Your task to perform on an android device: turn off data saver in the chrome app Image 0: 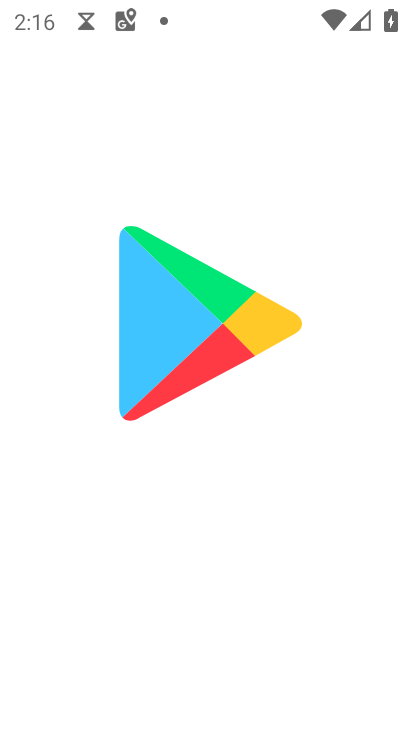
Step 0: click (326, 556)
Your task to perform on an android device: turn off data saver in the chrome app Image 1: 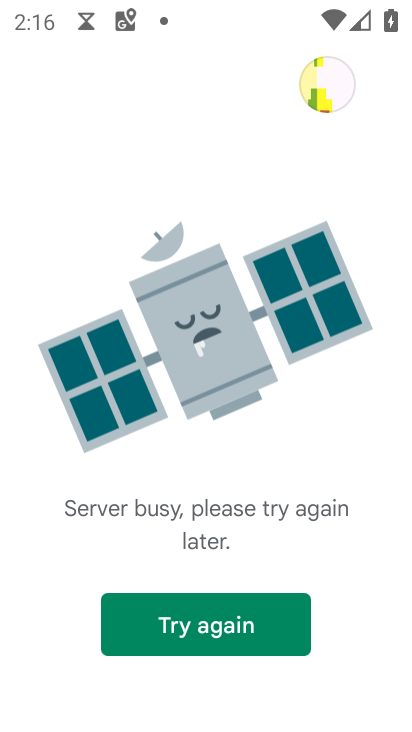
Step 1: press home button
Your task to perform on an android device: turn off data saver in the chrome app Image 2: 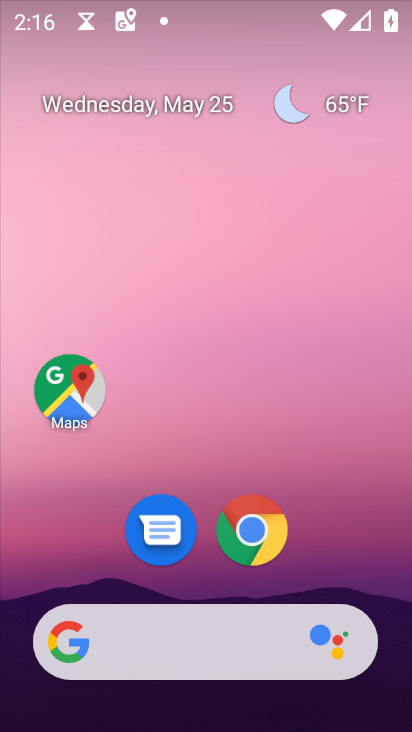
Step 2: drag from (337, 553) to (311, 271)
Your task to perform on an android device: turn off data saver in the chrome app Image 3: 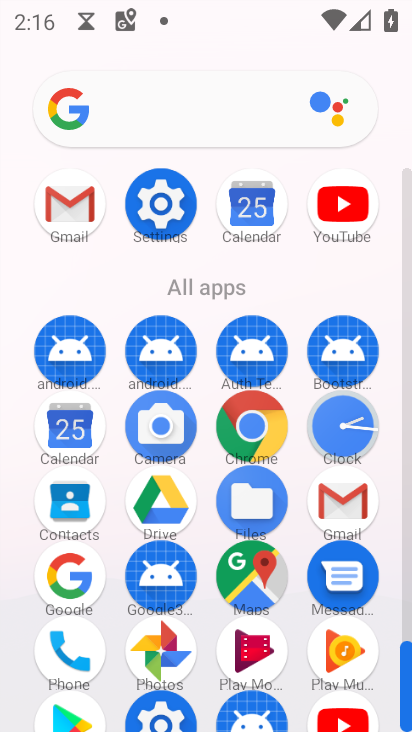
Step 3: click (146, 197)
Your task to perform on an android device: turn off data saver in the chrome app Image 4: 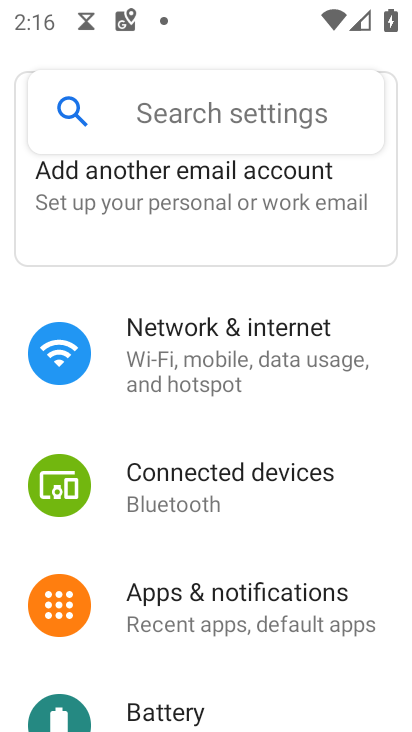
Step 4: press home button
Your task to perform on an android device: turn off data saver in the chrome app Image 5: 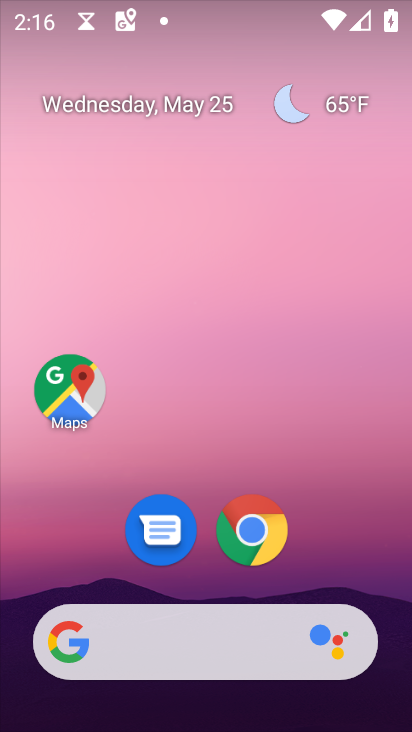
Step 5: click (267, 526)
Your task to perform on an android device: turn off data saver in the chrome app Image 6: 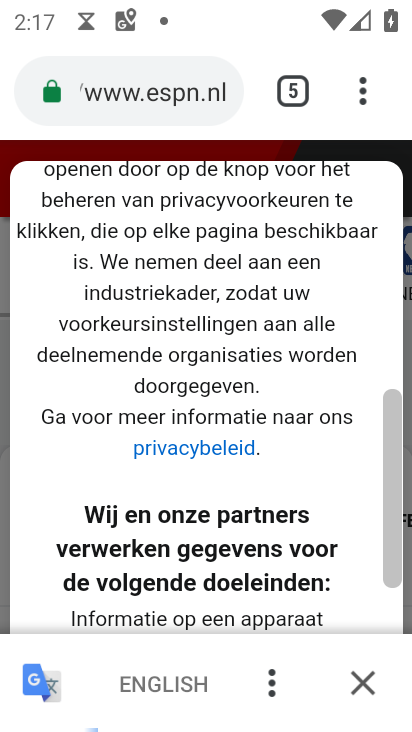
Step 6: click (373, 90)
Your task to perform on an android device: turn off data saver in the chrome app Image 7: 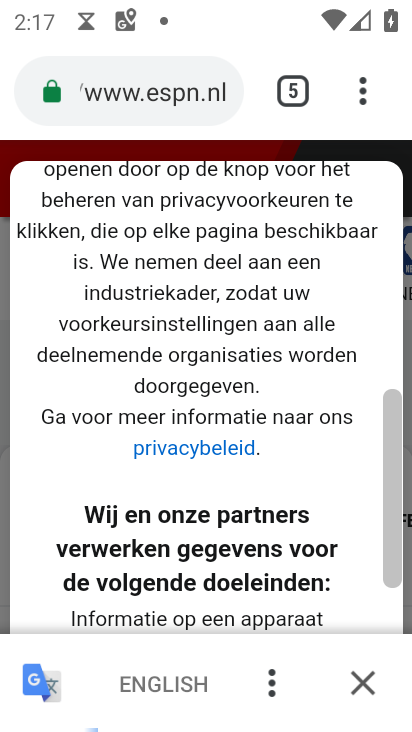
Step 7: click (371, 94)
Your task to perform on an android device: turn off data saver in the chrome app Image 8: 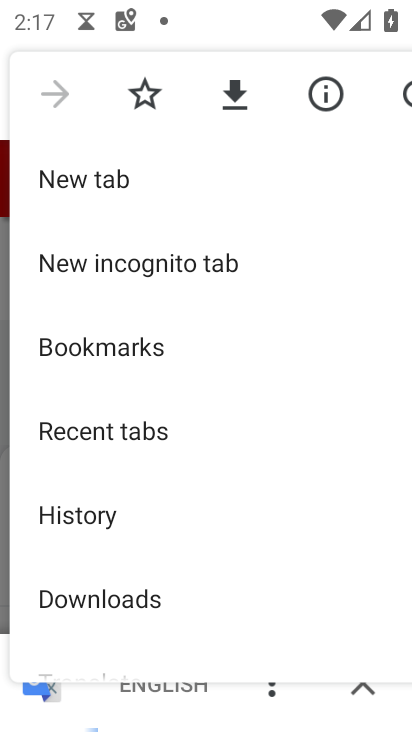
Step 8: drag from (278, 533) to (283, 203)
Your task to perform on an android device: turn off data saver in the chrome app Image 9: 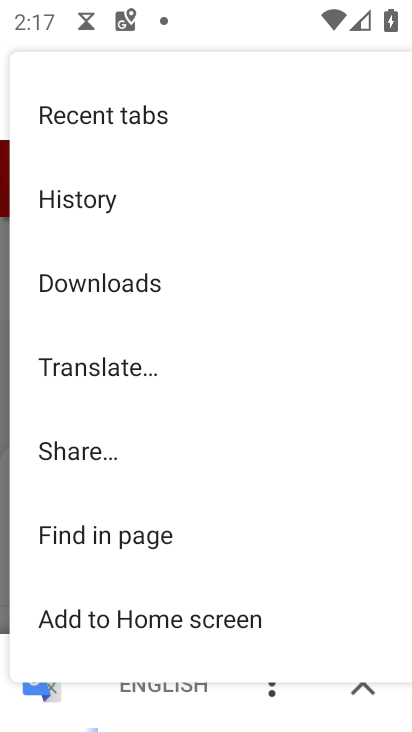
Step 9: drag from (188, 520) to (223, 174)
Your task to perform on an android device: turn off data saver in the chrome app Image 10: 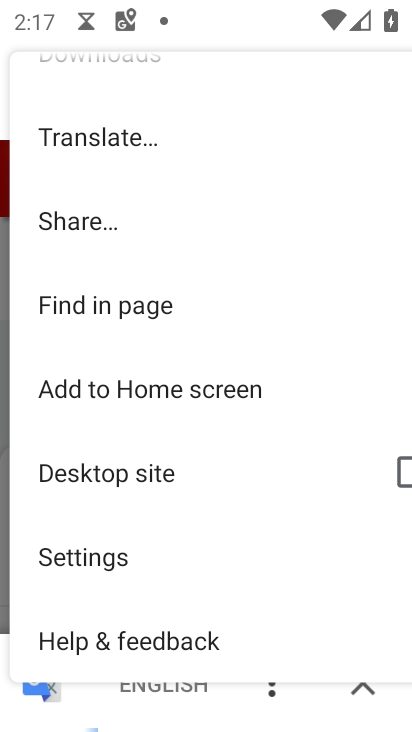
Step 10: click (112, 544)
Your task to perform on an android device: turn off data saver in the chrome app Image 11: 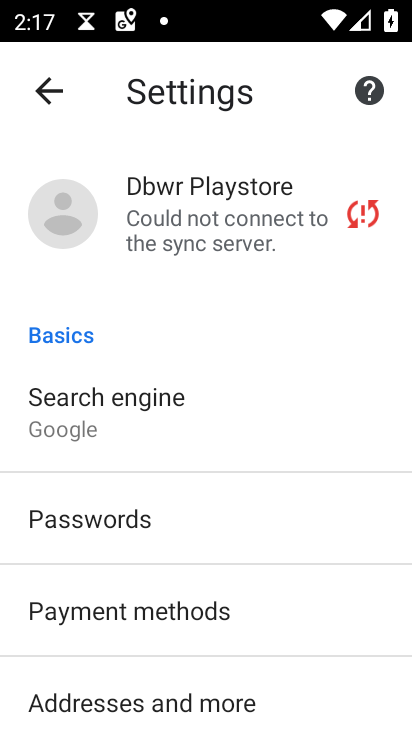
Step 11: drag from (242, 590) to (262, 237)
Your task to perform on an android device: turn off data saver in the chrome app Image 12: 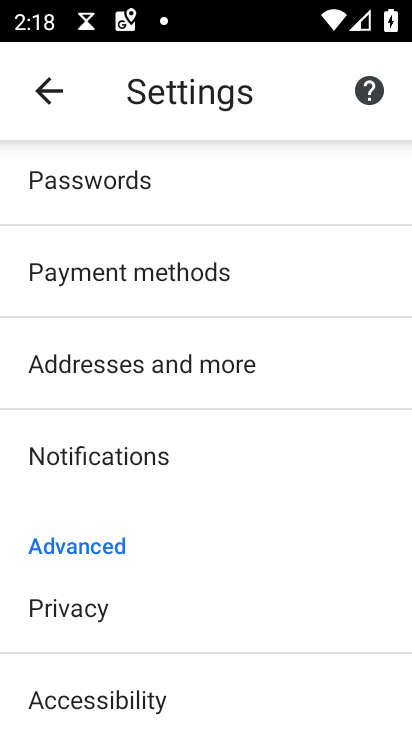
Step 12: drag from (223, 561) to (267, 132)
Your task to perform on an android device: turn off data saver in the chrome app Image 13: 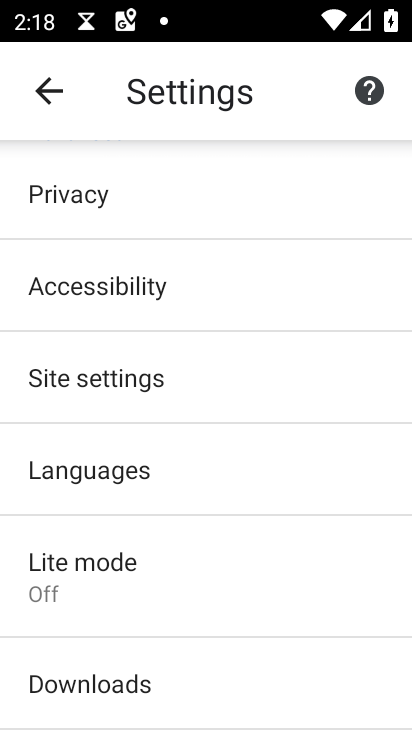
Step 13: click (185, 568)
Your task to perform on an android device: turn off data saver in the chrome app Image 14: 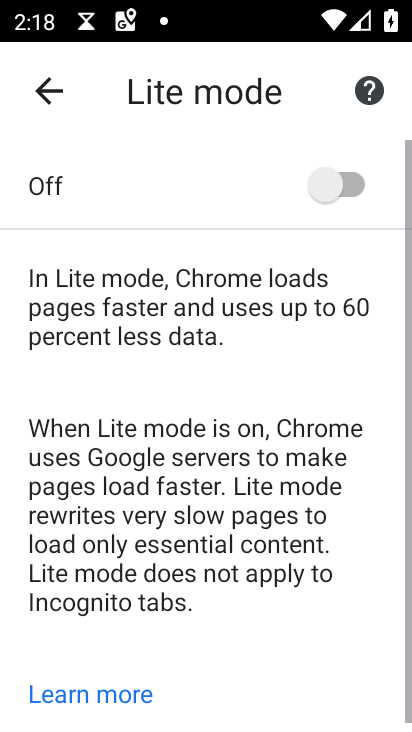
Step 14: task complete